Your task to perform on an android device: Open Amazon Image 0: 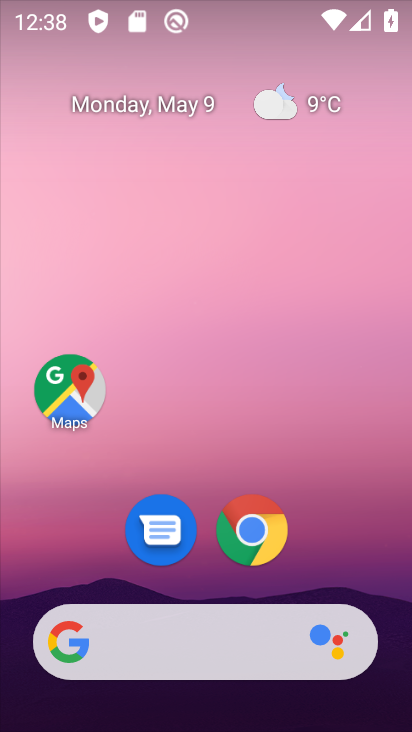
Step 0: drag from (358, 573) to (284, 237)
Your task to perform on an android device: Open Amazon Image 1: 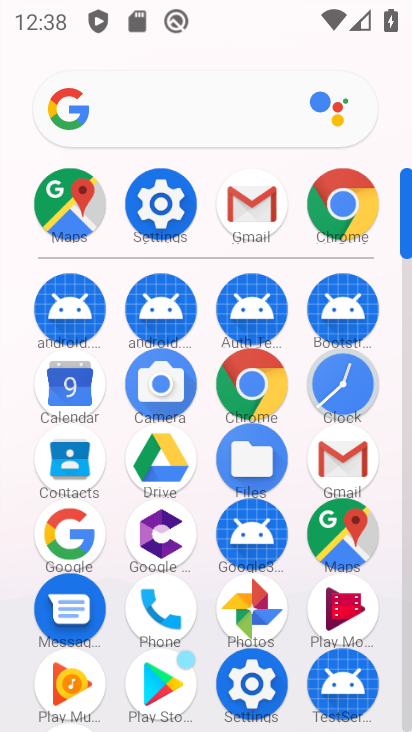
Step 1: click (345, 208)
Your task to perform on an android device: Open Amazon Image 2: 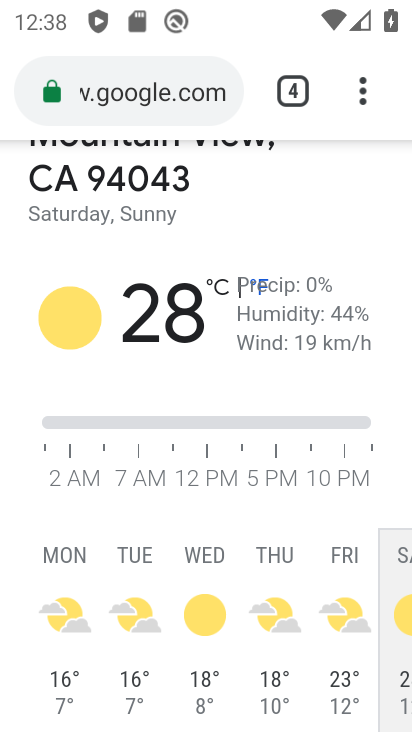
Step 2: click (349, 90)
Your task to perform on an android device: Open Amazon Image 3: 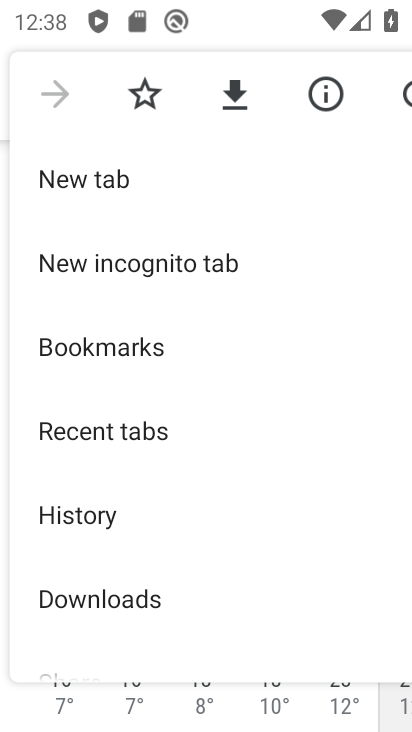
Step 3: click (127, 187)
Your task to perform on an android device: Open Amazon Image 4: 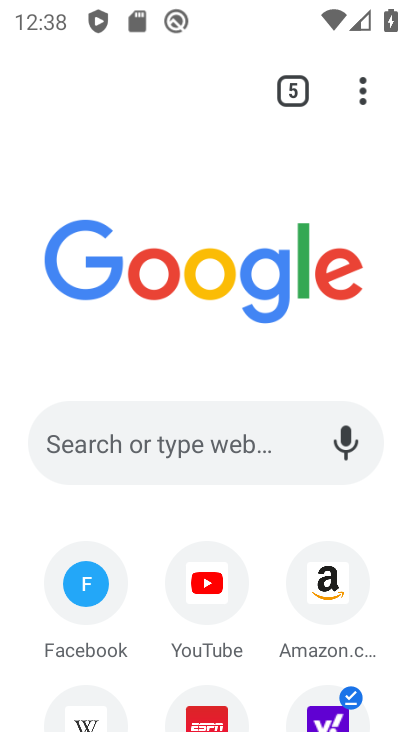
Step 4: click (307, 597)
Your task to perform on an android device: Open Amazon Image 5: 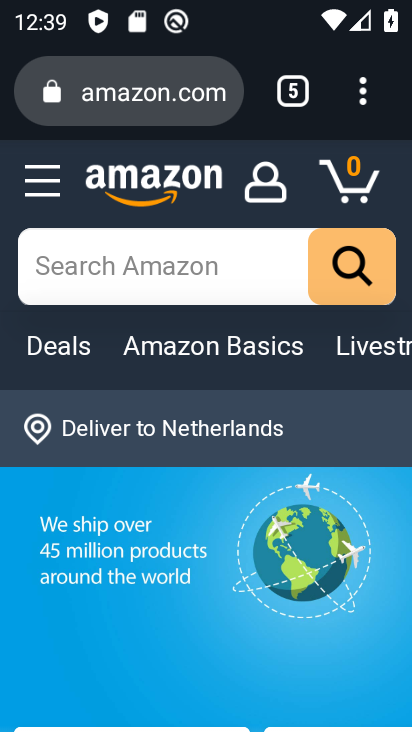
Step 5: task complete